Your task to perform on an android device: Turn off the flashlight Image 0: 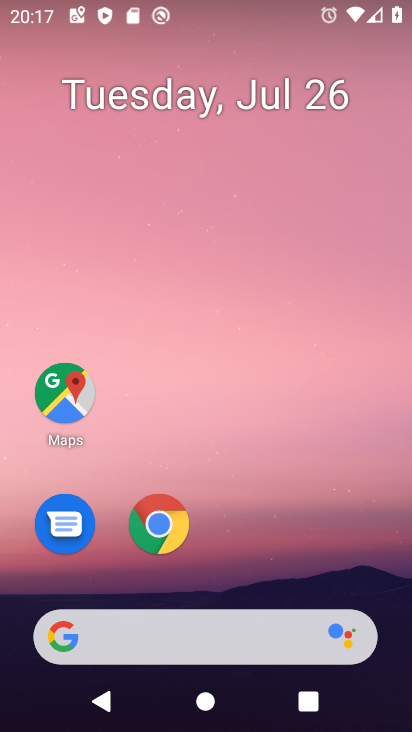
Step 0: drag from (293, 541) to (292, 19)
Your task to perform on an android device: Turn off the flashlight Image 1: 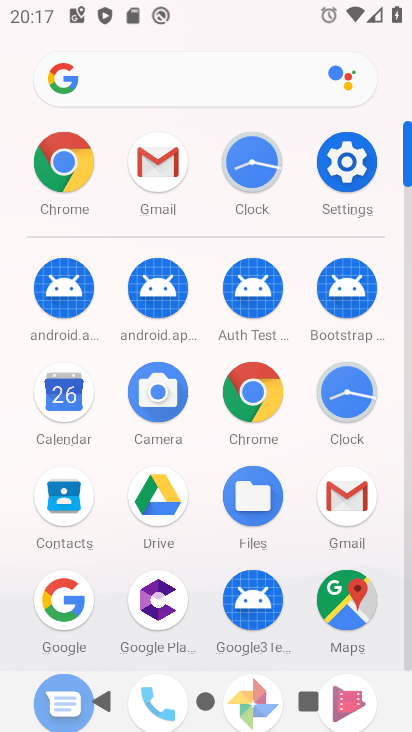
Step 1: click (353, 160)
Your task to perform on an android device: Turn off the flashlight Image 2: 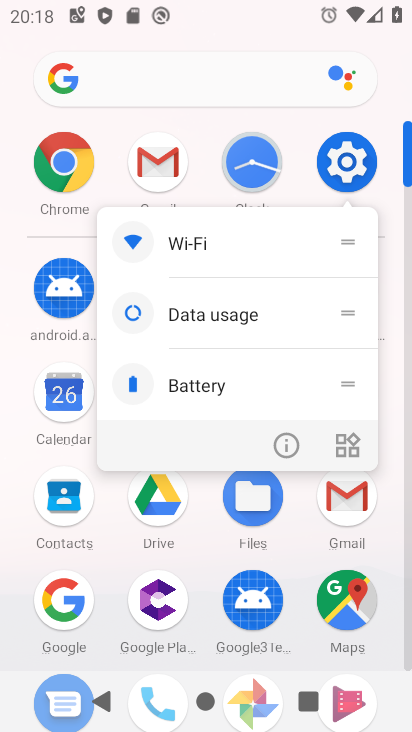
Step 2: click (355, 158)
Your task to perform on an android device: Turn off the flashlight Image 3: 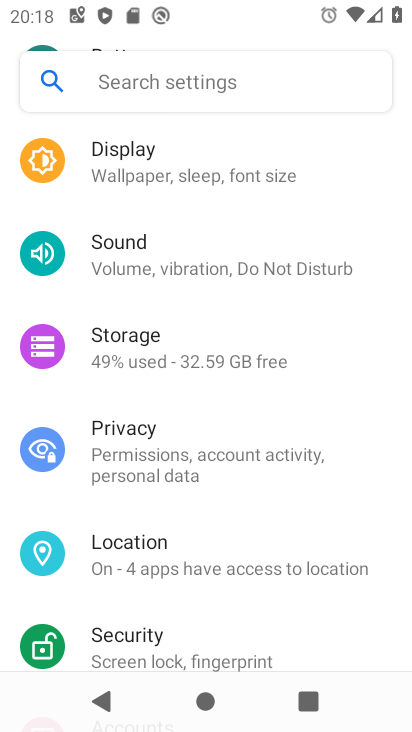
Step 3: drag from (227, 227) to (231, 578)
Your task to perform on an android device: Turn off the flashlight Image 4: 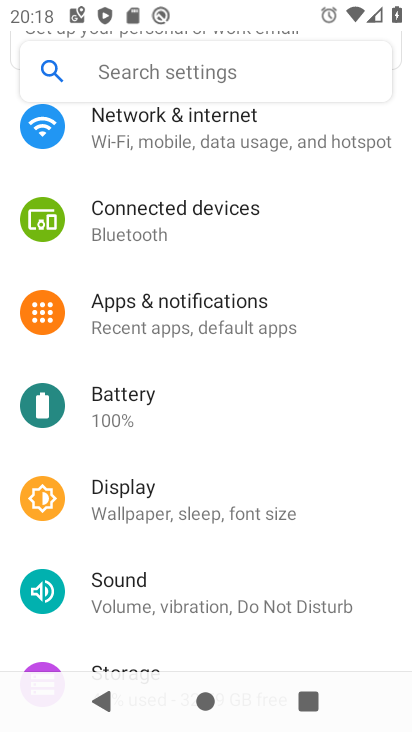
Step 4: drag from (239, 273) to (301, 608)
Your task to perform on an android device: Turn off the flashlight Image 5: 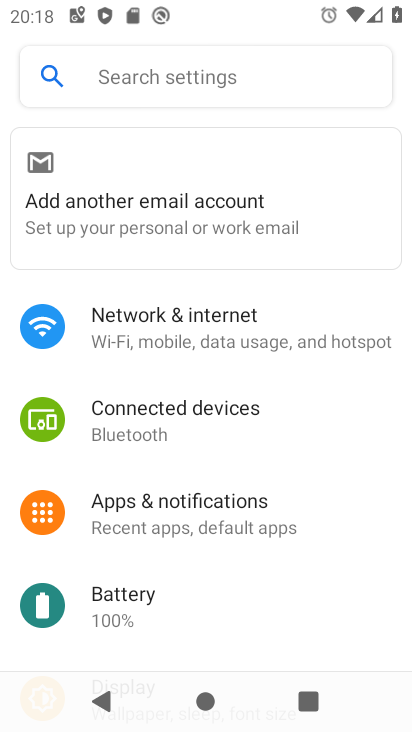
Step 5: click (276, 71)
Your task to perform on an android device: Turn off the flashlight Image 6: 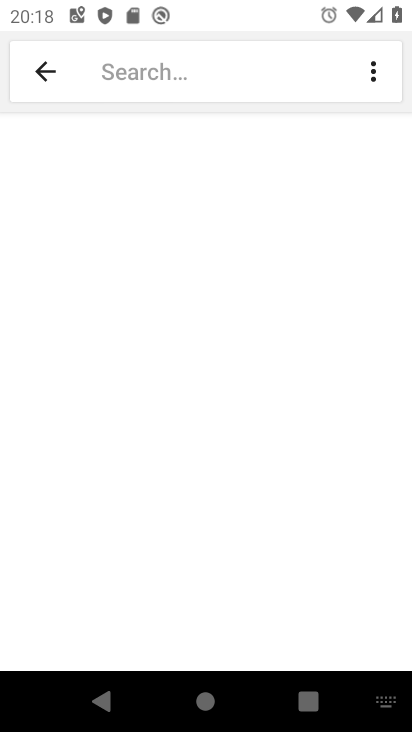
Step 6: type "Flashlight"
Your task to perform on an android device: Turn off the flashlight Image 7: 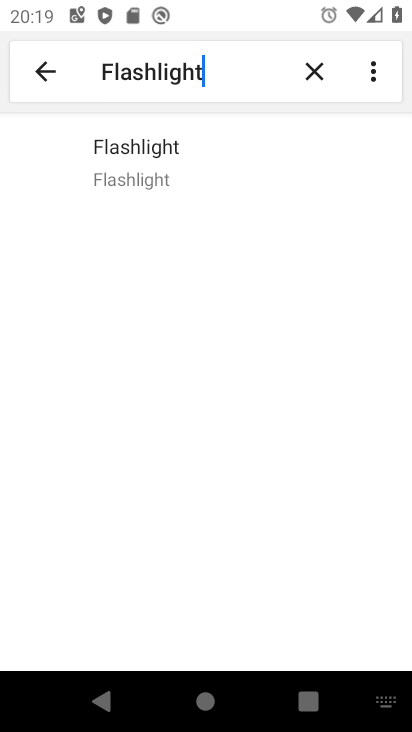
Step 7: click (158, 151)
Your task to perform on an android device: Turn off the flashlight Image 8: 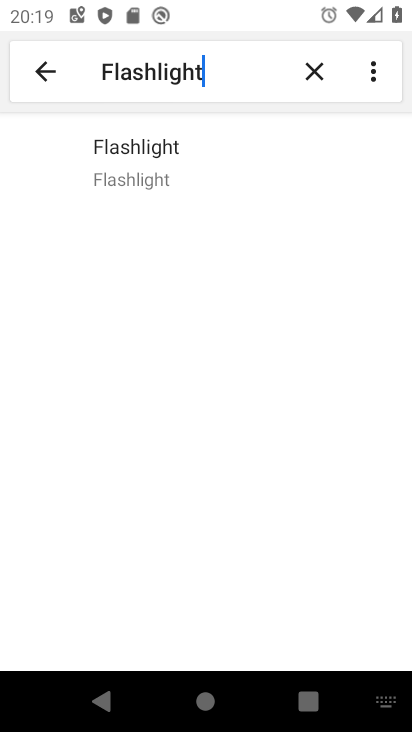
Step 8: task complete